Your task to perform on an android device: Open the Play Movies app and select the watchlist tab. Image 0: 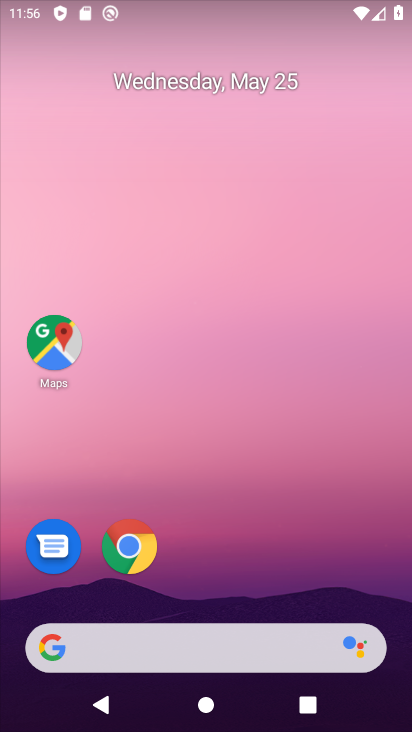
Step 0: drag from (181, 608) to (293, 4)
Your task to perform on an android device: Open the Play Movies app and select the watchlist tab. Image 1: 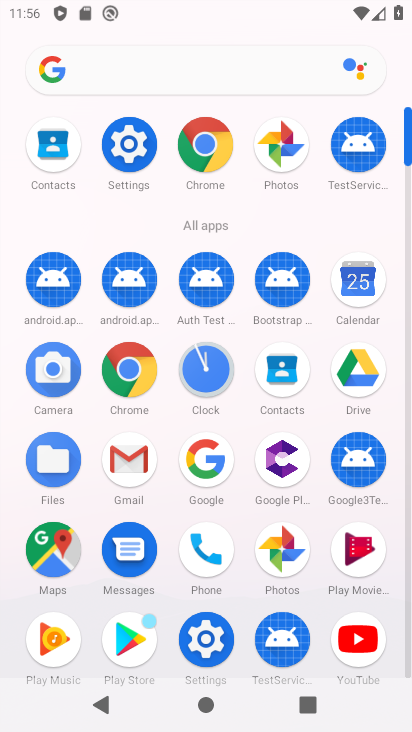
Step 1: click (343, 623)
Your task to perform on an android device: Open the Play Movies app and select the watchlist tab. Image 2: 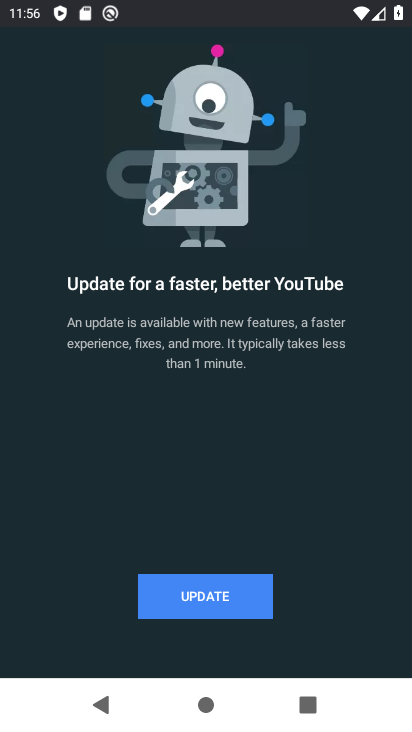
Step 2: press home button
Your task to perform on an android device: Open the Play Movies app and select the watchlist tab. Image 3: 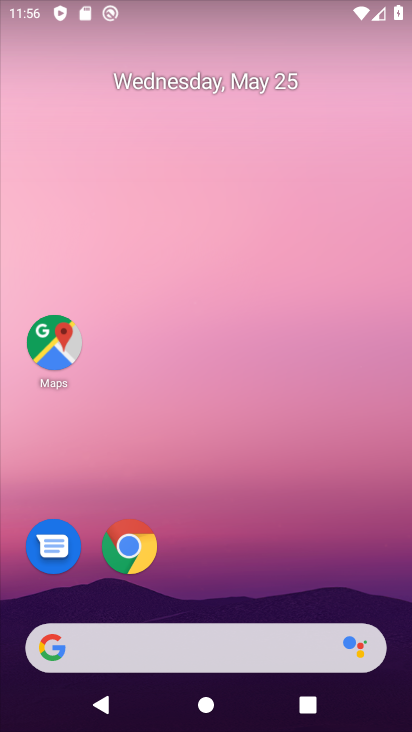
Step 3: drag from (248, 581) to (235, 44)
Your task to perform on an android device: Open the Play Movies app and select the watchlist tab. Image 4: 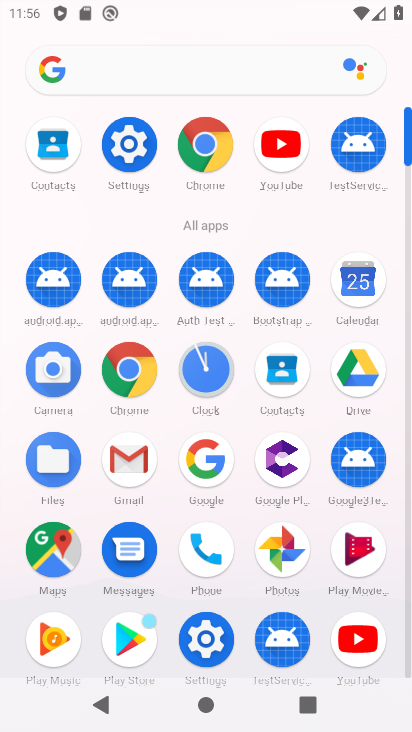
Step 4: click (344, 541)
Your task to perform on an android device: Open the Play Movies app and select the watchlist tab. Image 5: 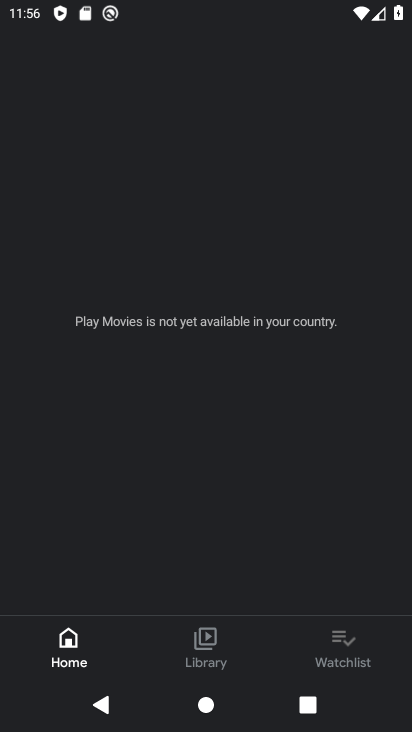
Step 5: click (362, 645)
Your task to perform on an android device: Open the Play Movies app and select the watchlist tab. Image 6: 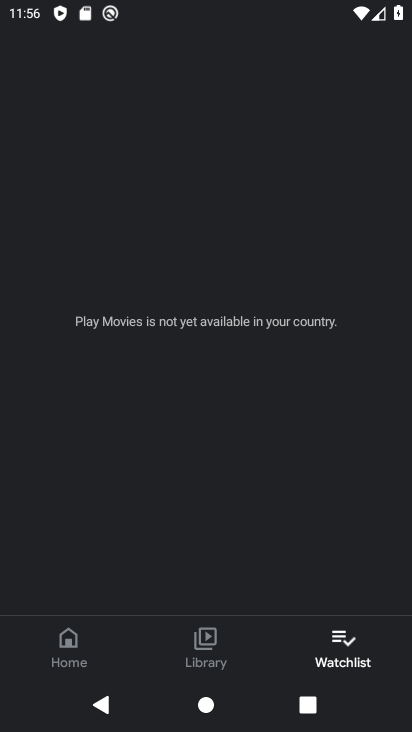
Step 6: task complete